Your task to perform on an android device: open app "eBay: The shopping marketplace" Image 0: 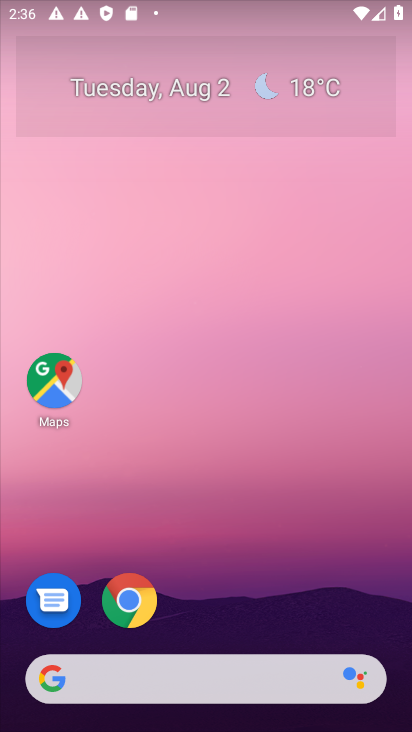
Step 0: drag from (152, 616) to (225, 23)
Your task to perform on an android device: open app "eBay: The shopping marketplace" Image 1: 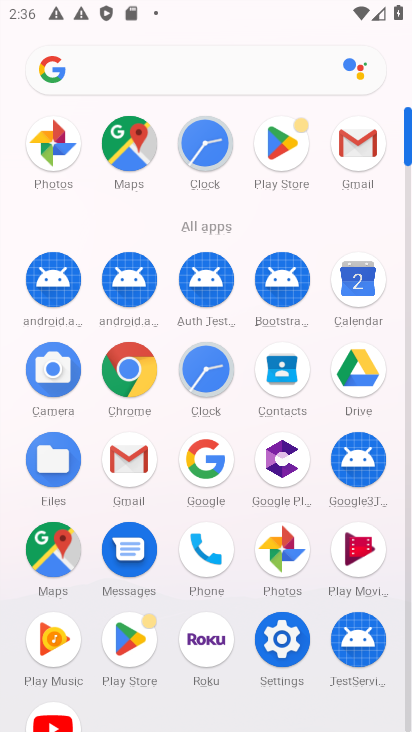
Step 1: click (284, 146)
Your task to perform on an android device: open app "eBay: The shopping marketplace" Image 2: 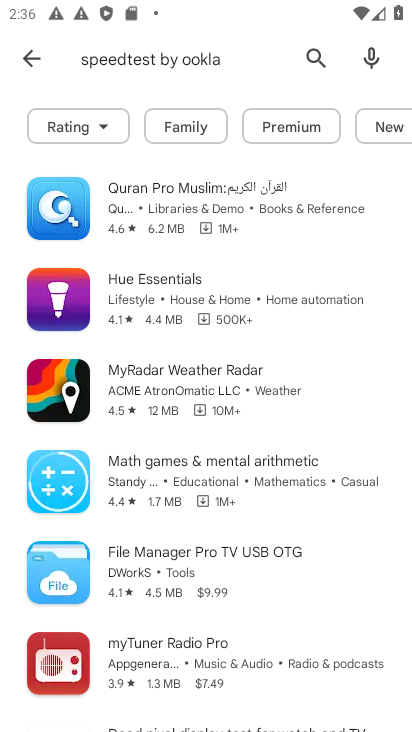
Step 2: click (307, 49)
Your task to perform on an android device: open app "eBay: The shopping marketplace" Image 3: 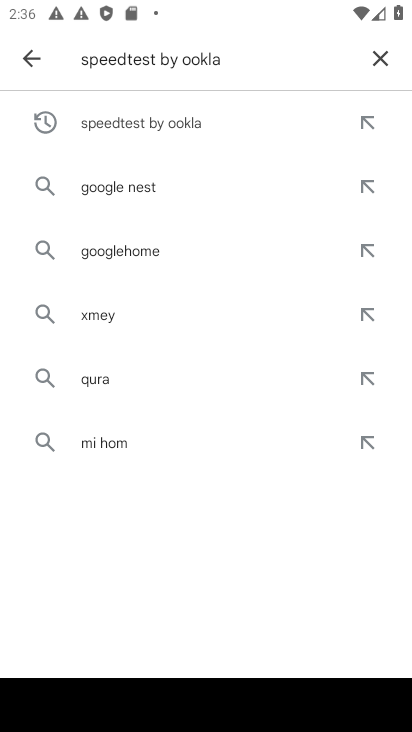
Step 3: click (371, 54)
Your task to perform on an android device: open app "eBay: The shopping marketplace" Image 4: 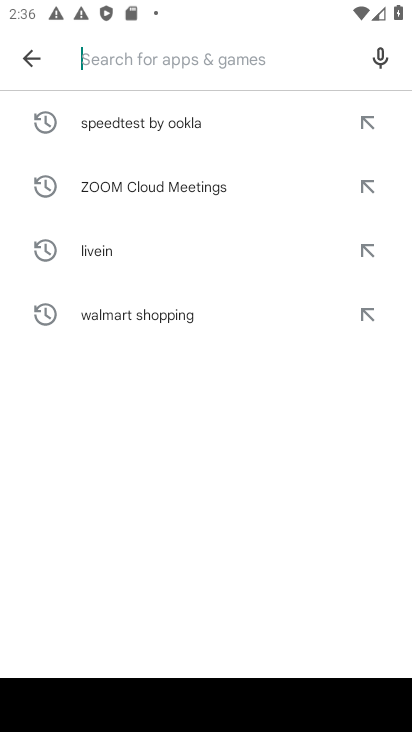
Step 4: type "eBay: The shopping marketplace"
Your task to perform on an android device: open app "eBay: The shopping marketplace" Image 5: 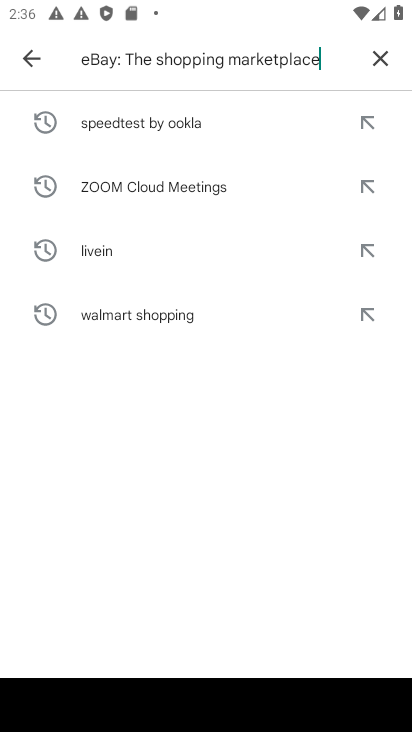
Step 5: type ""
Your task to perform on an android device: open app "eBay: The shopping marketplace" Image 6: 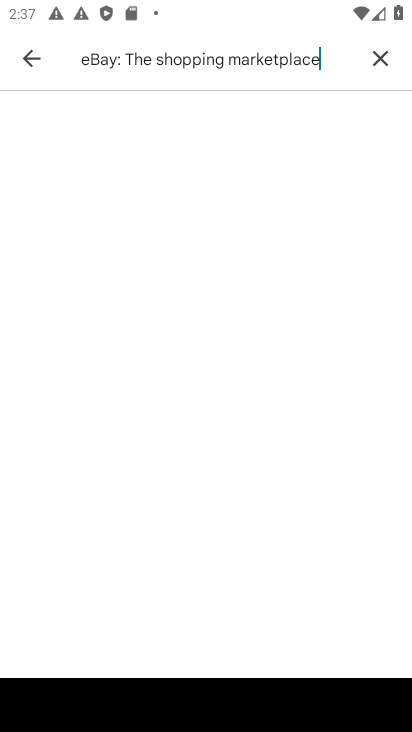
Step 6: press enter
Your task to perform on an android device: open app "eBay: The shopping marketplace" Image 7: 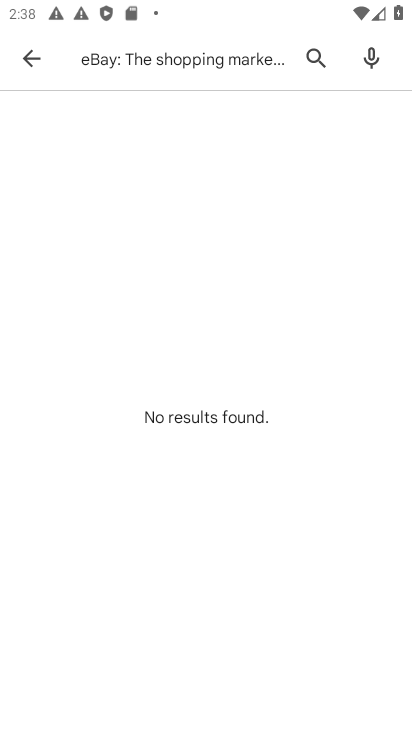
Step 7: task complete